Your task to perform on an android device: turn pop-ups off in chrome Image 0: 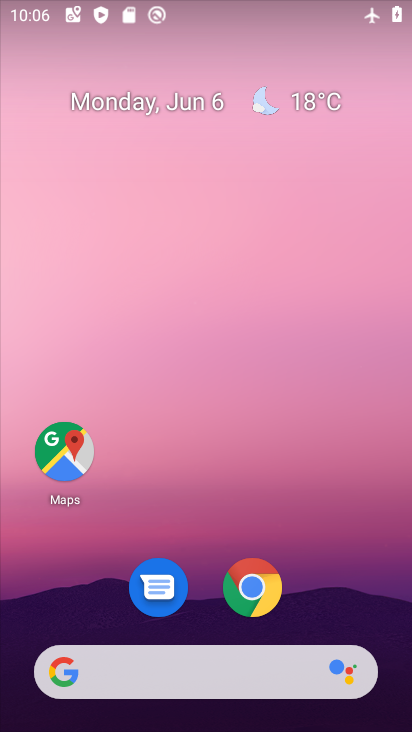
Step 0: click (254, 587)
Your task to perform on an android device: turn pop-ups off in chrome Image 1: 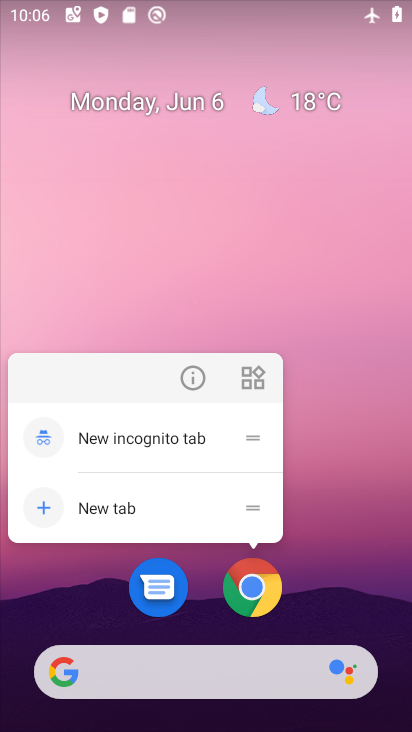
Step 1: click (254, 587)
Your task to perform on an android device: turn pop-ups off in chrome Image 2: 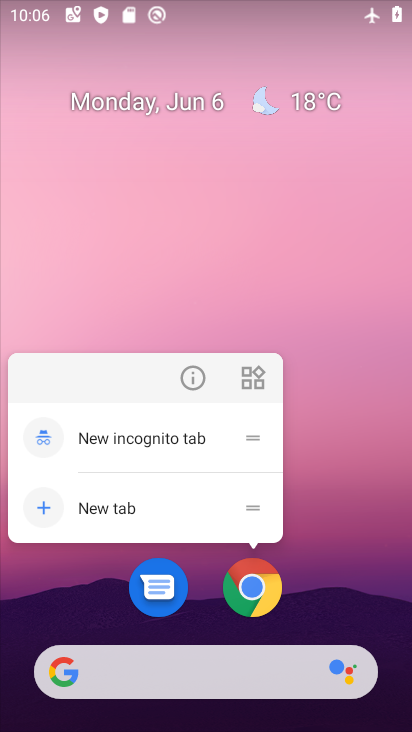
Step 2: click (250, 588)
Your task to perform on an android device: turn pop-ups off in chrome Image 3: 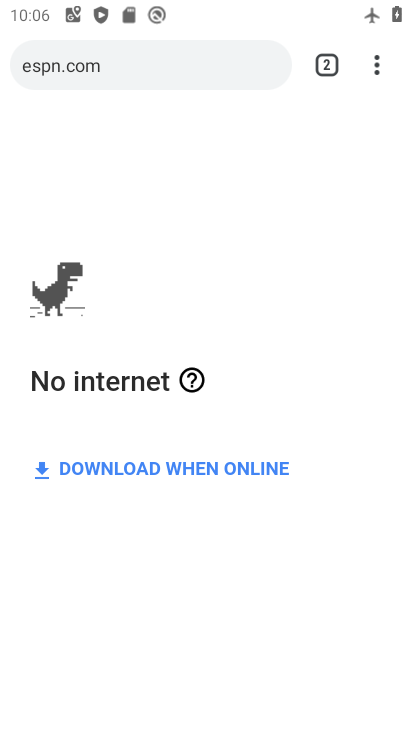
Step 3: drag from (377, 60) to (181, 634)
Your task to perform on an android device: turn pop-ups off in chrome Image 4: 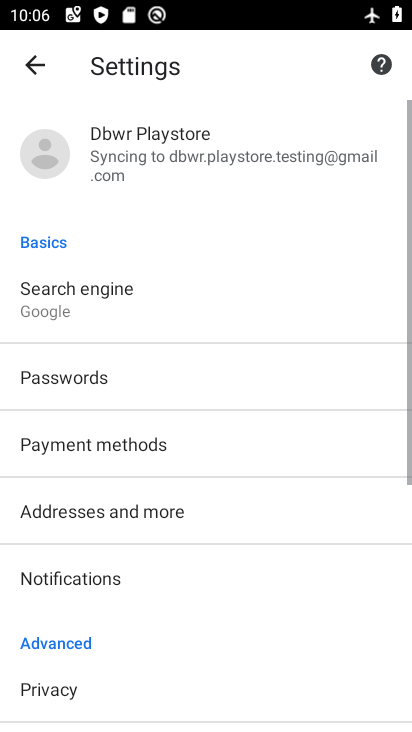
Step 4: drag from (181, 634) to (300, 119)
Your task to perform on an android device: turn pop-ups off in chrome Image 5: 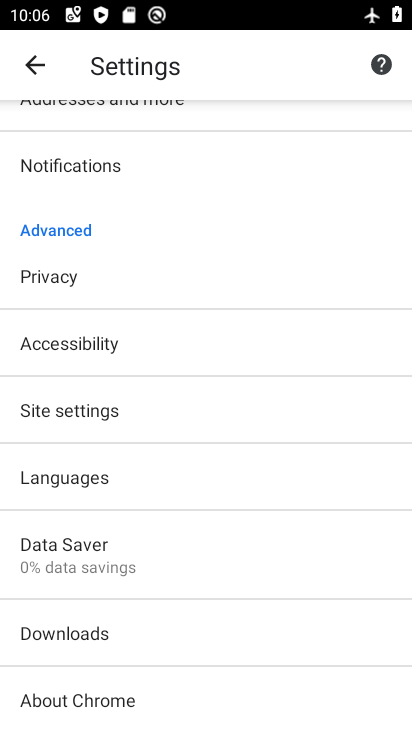
Step 5: click (119, 420)
Your task to perform on an android device: turn pop-ups off in chrome Image 6: 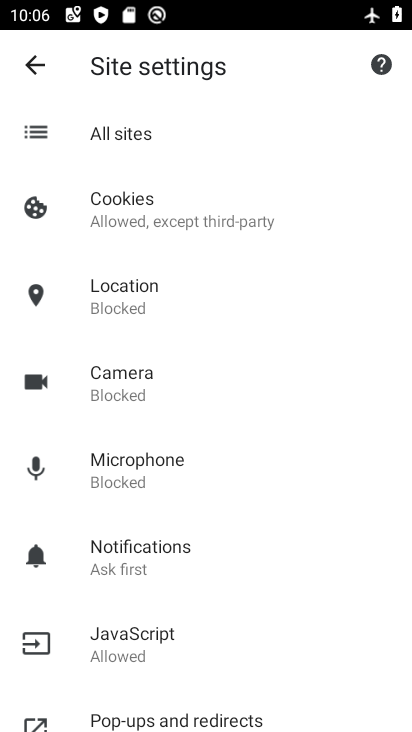
Step 6: drag from (209, 643) to (259, 308)
Your task to perform on an android device: turn pop-ups off in chrome Image 7: 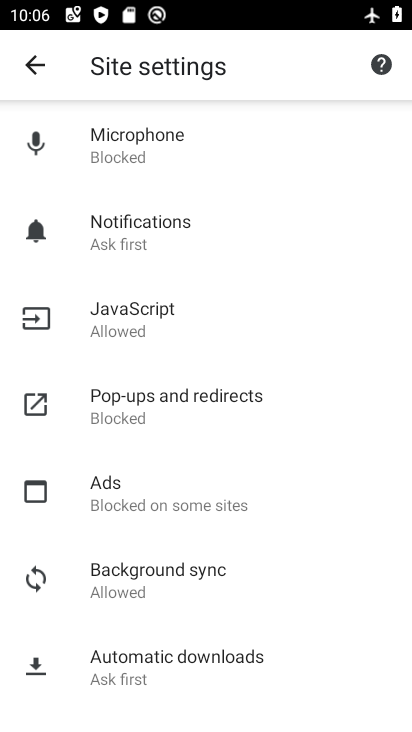
Step 7: click (219, 409)
Your task to perform on an android device: turn pop-ups off in chrome Image 8: 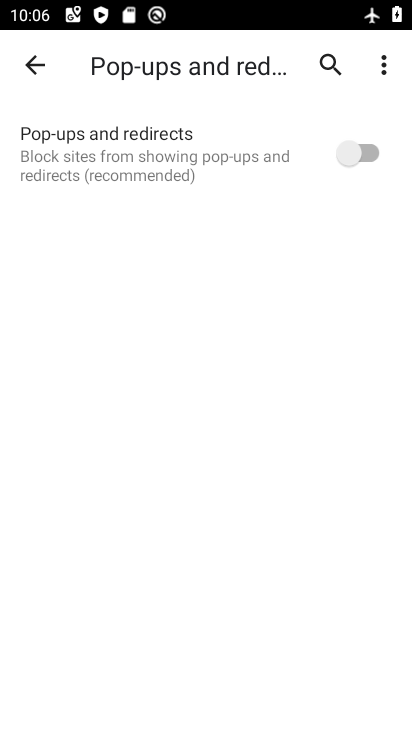
Step 8: task complete